Your task to perform on an android device: check storage Image 0: 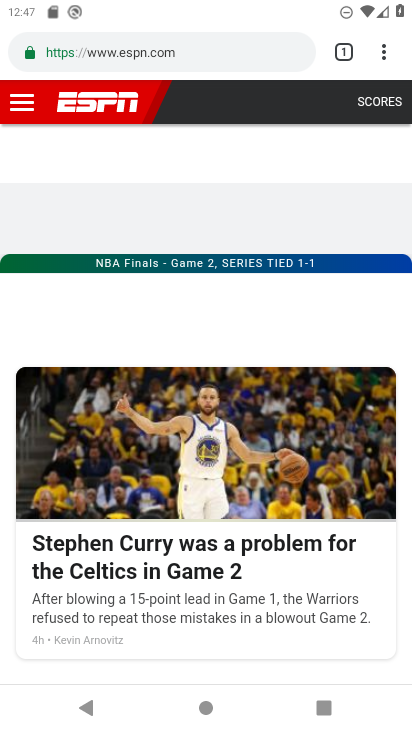
Step 0: press home button
Your task to perform on an android device: check storage Image 1: 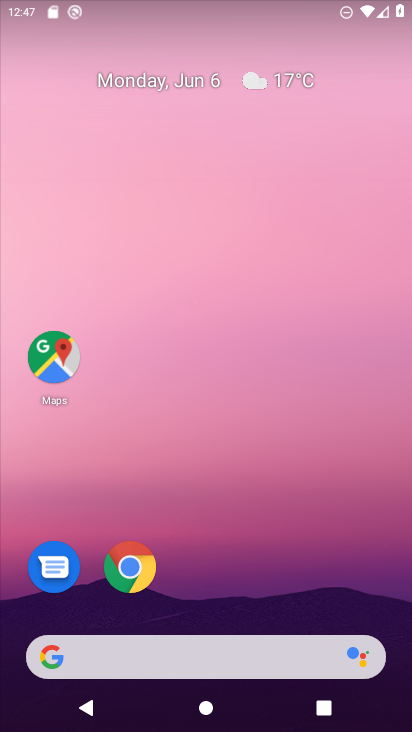
Step 1: drag from (235, 730) to (206, 98)
Your task to perform on an android device: check storage Image 2: 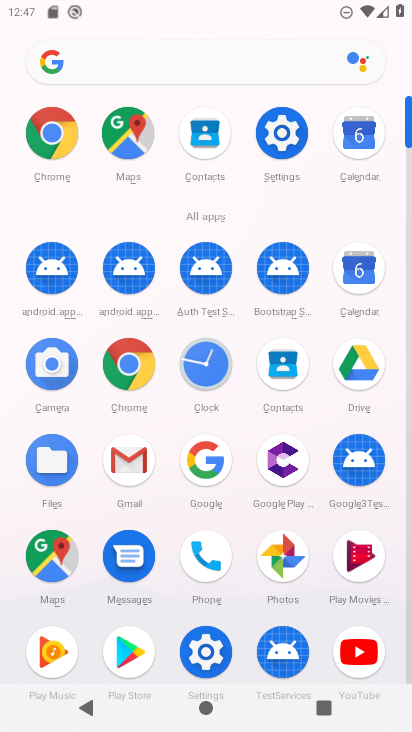
Step 2: click (293, 132)
Your task to perform on an android device: check storage Image 3: 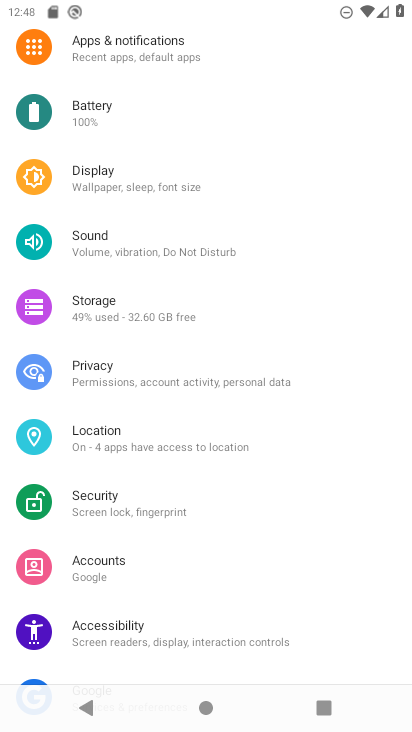
Step 3: drag from (142, 655) to (114, 415)
Your task to perform on an android device: check storage Image 4: 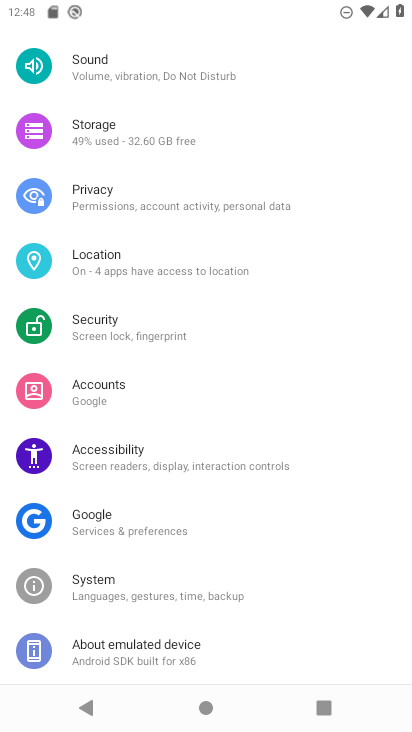
Step 4: click (111, 124)
Your task to perform on an android device: check storage Image 5: 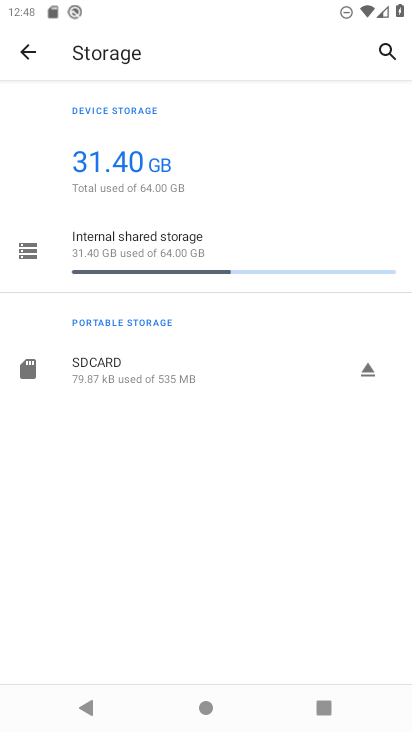
Step 5: task complete